Your task to perform on an android device: What is the recent news? Image 0: 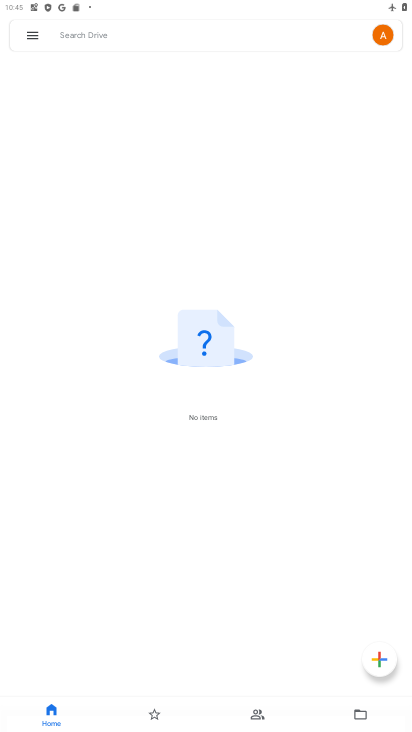
Step 0: press home button
Your task to perform on an android device: What is the recent news? Image 1: 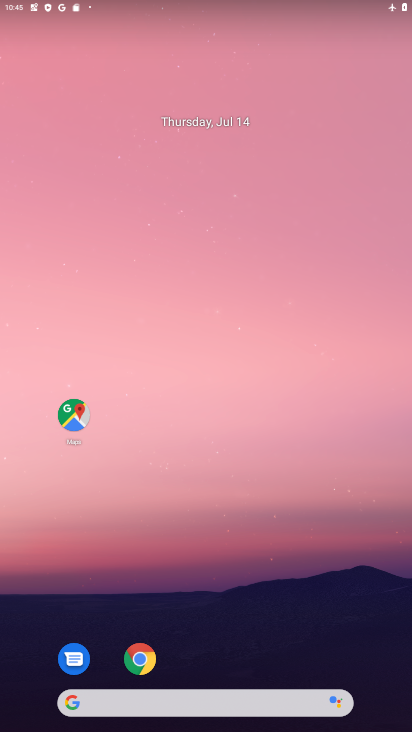
Step 1: drag from (349, 622) to (265, 104)
Your task to perform on an android device: What is the recent news? Image 2: 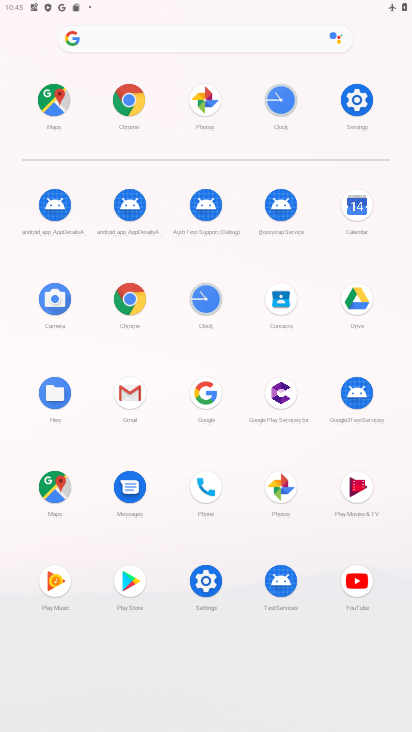
Step 2: click (128, 296)
Your task to perform on an android device: What is the recent news? Image 3: 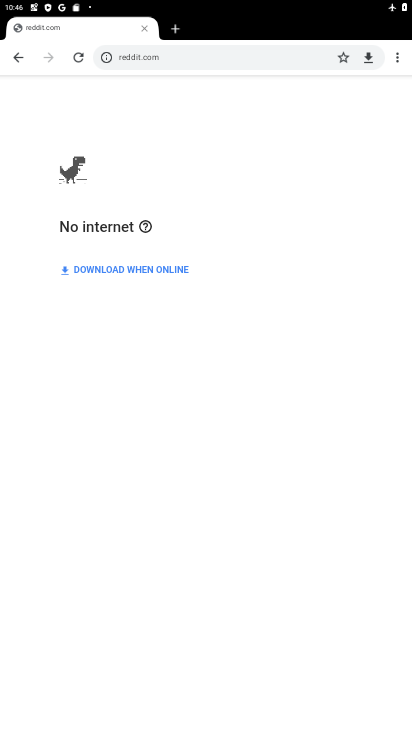
Step 3: click (236, 63)
Your task to perform on an android device: What is the recent news? Image 4: 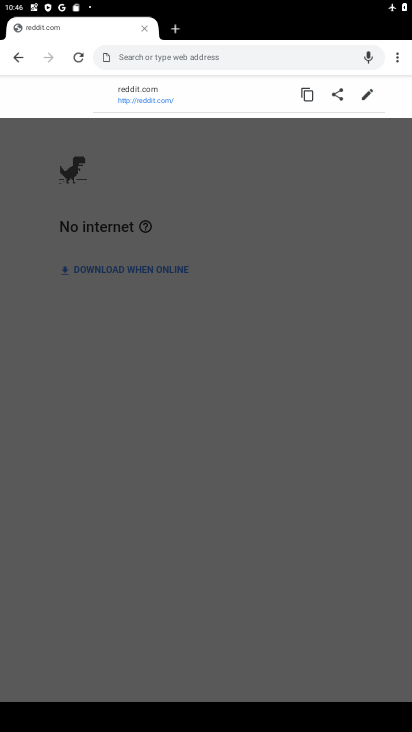
Step 4: type "news"
Your task to perform on an android device: What is the recent news? Image 5: 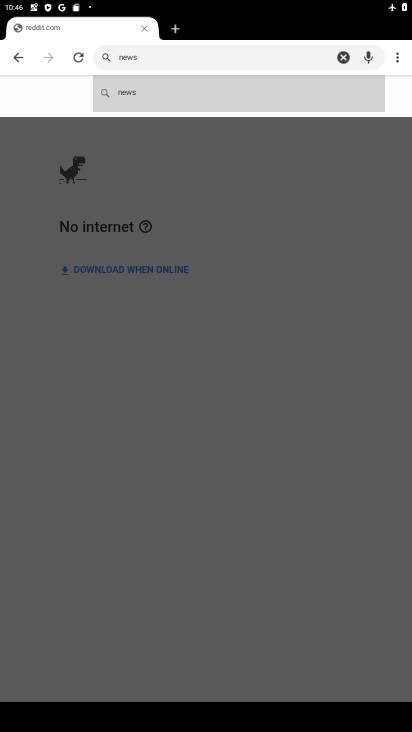
Step 5: click (139, 100)
Your task to perform on an android device: What is the recent news? Image 6: 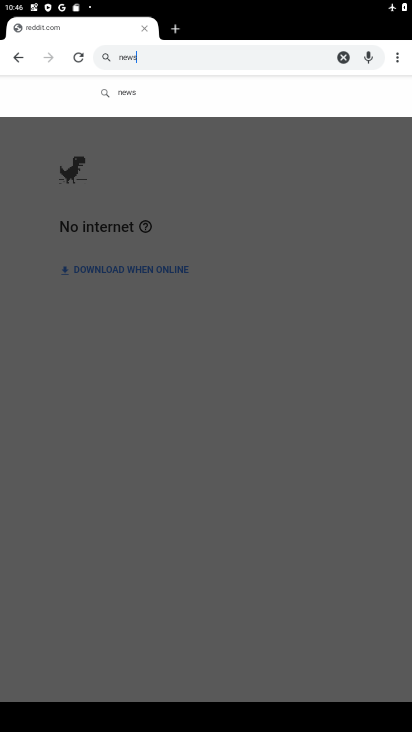
Step 6: click (121, 89)
Your task to perform on an android device: What is the recent news? Image 7: 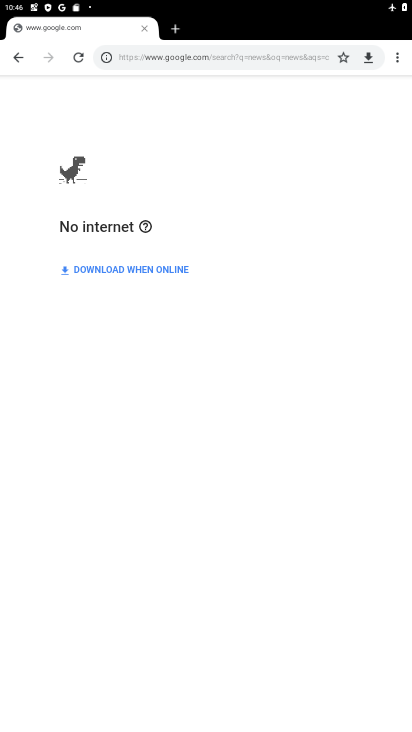
Step 7: task complete